Your task to perform on an android device: set default search engine in the chrome app Image 0: 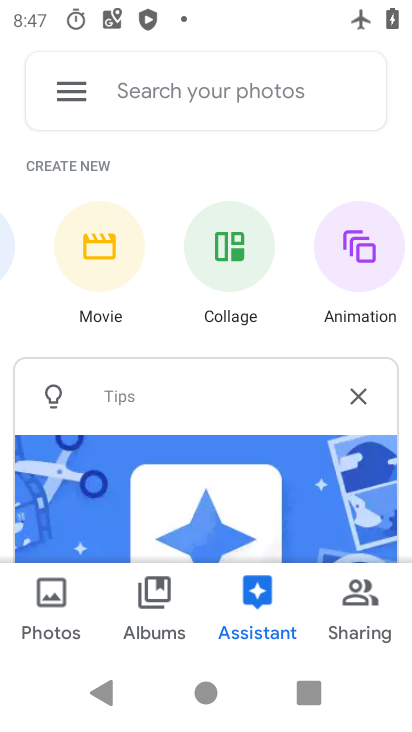
Step 0: press home button
Your task to perform on an android device: set default search engine in the chrome app Image 1: 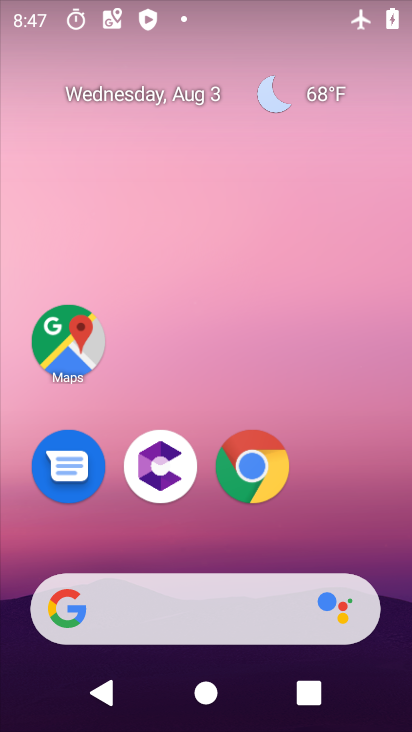
Step 1: drag from (331, 442) to (332, 57)
Your task to perform on an android device: set default search engine in the chrome app Image 2: 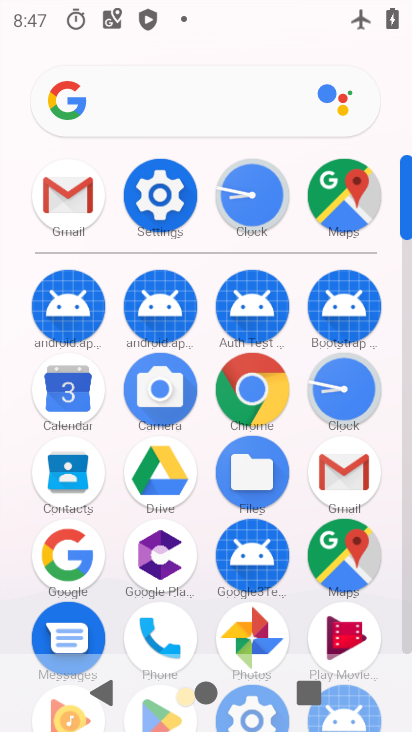
Step 2: click (249, 386)
Your task to perform on an android device: set default search engine in the chrome app Image 3: 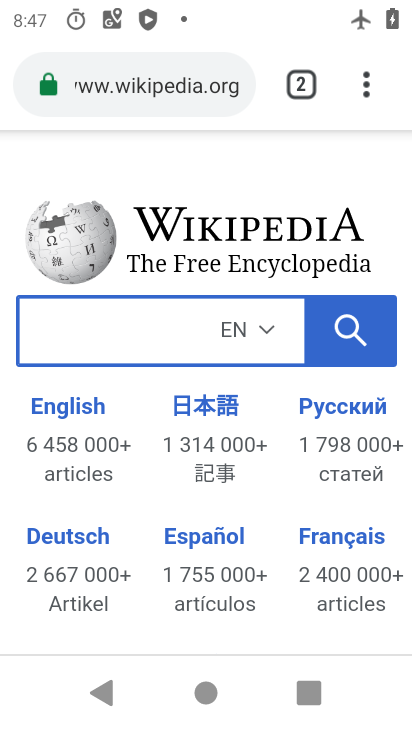
Step 3: drag from (367, 76) to (156, 524)
Your task to perform on an android device: set default search engine in the chrome app Image 4: 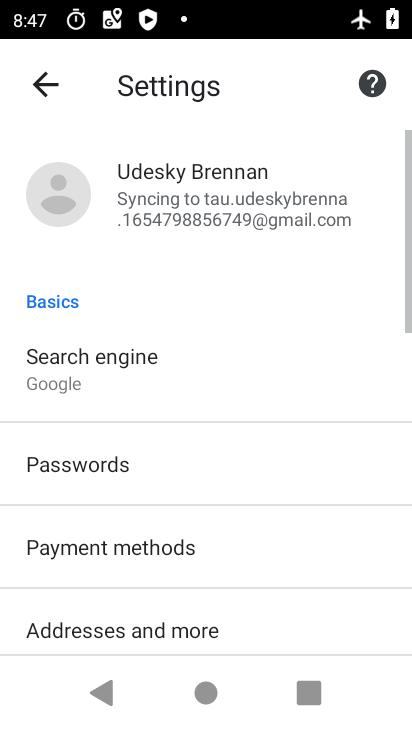
Step 4: drag from (265, 545) to (294, 59)
Your task to perform on an android device: set default search engine in the chrome app Image 5: 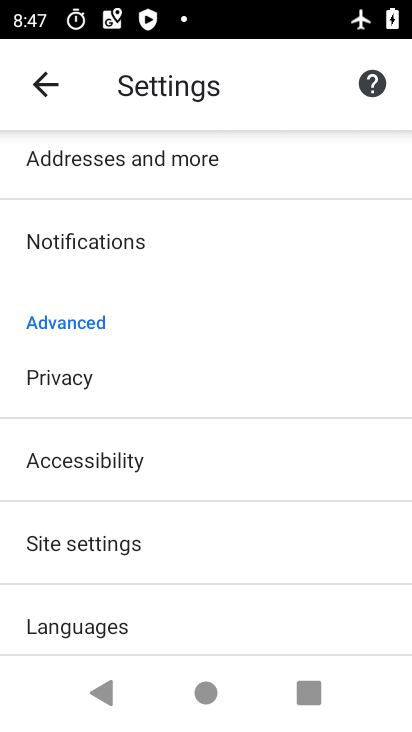
Step 5: drag from (257, 226) to (224, 569)
Your task to perform on an android device: set default search engine in the chrome app Image 6: 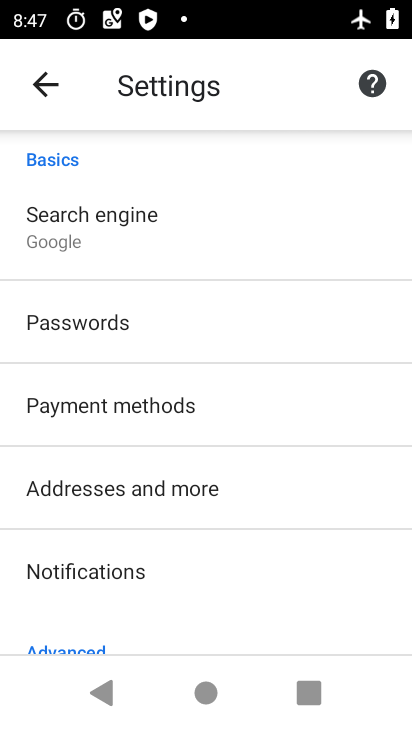
Step 6: click (114, 228)
Your task to perform on an android device: set default search engine in the chrome app Image 7: 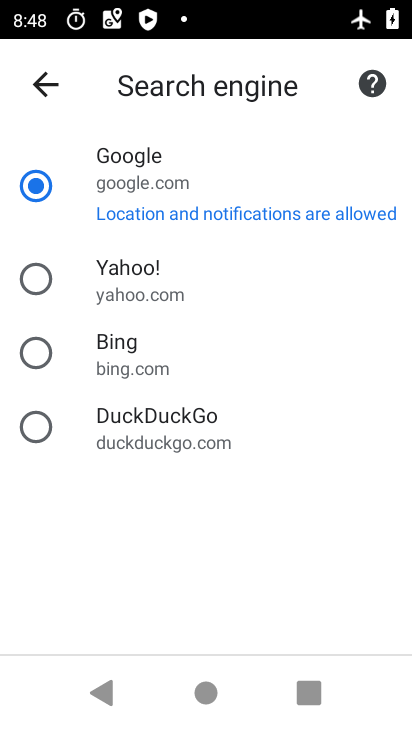
Step 7: task complete